Your task to perform on an android device: open a bookmark in the chrome app Image 0: 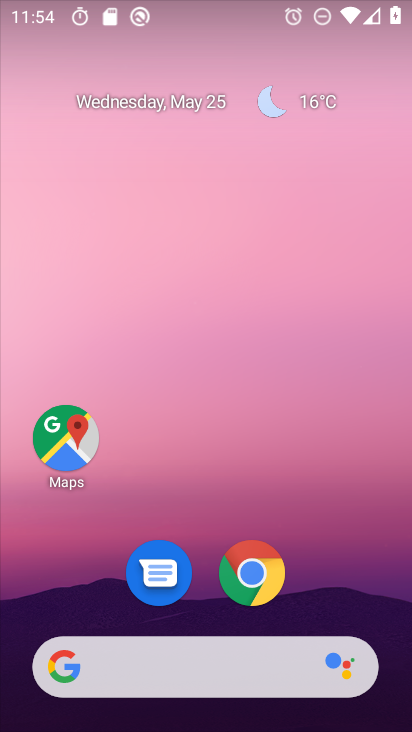
Step 0: click (260, 580)
Your task to perform on an android device: open a bookmark in the chrome app Image 1: 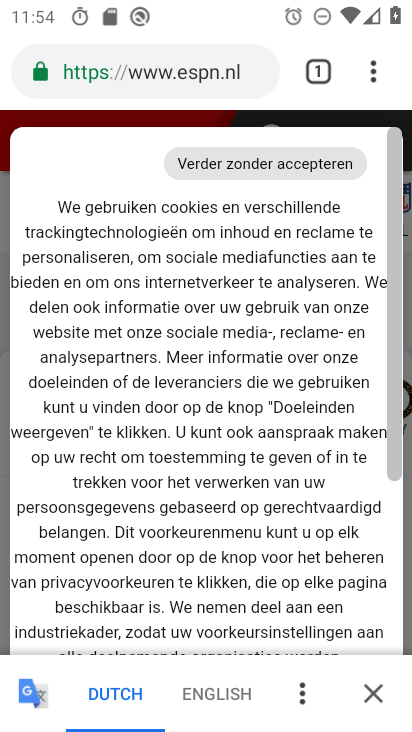
Step 1: click (374, 69)
Your task to perform on an android device: open a bookmark in the chrome app Image 2: 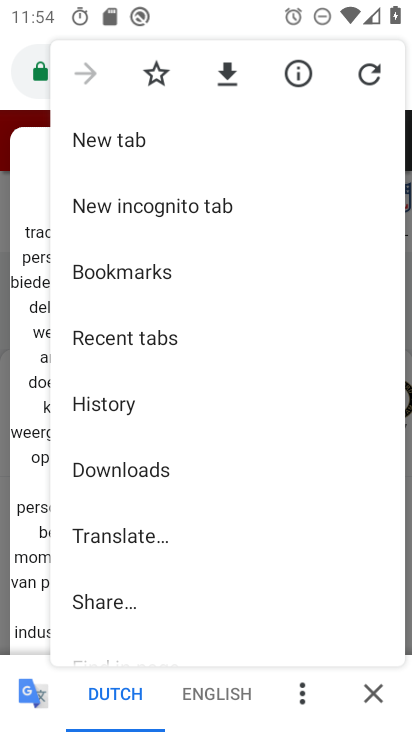
Step 2: click (119, 275)
Your task to perform on an android device: open a bookmark in the chrome app Image 3: 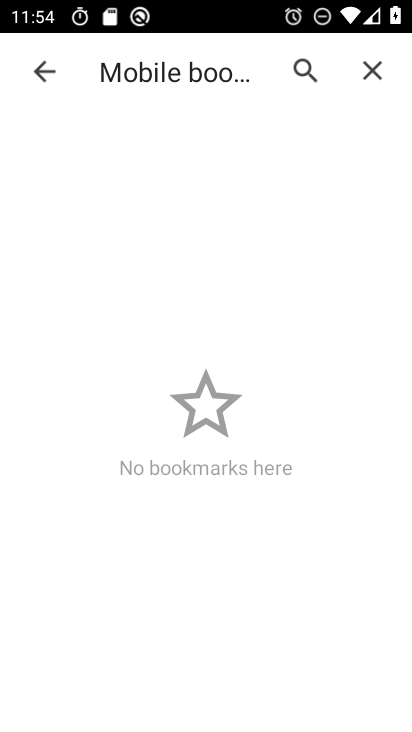
Step 3: task complete